Your task to perform on an android device: make emails show in primary in the gmail app Image 0: 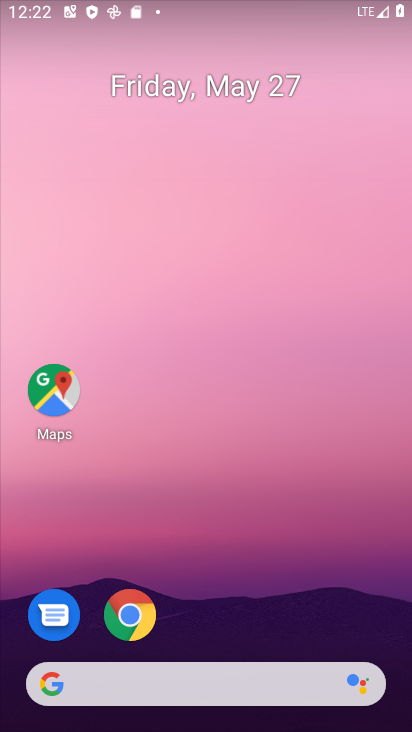
Step 0: drag from (227, 701) to (344, 25)
Your task to perform on an android device: make emails show in primary in the gmail app Image 1: 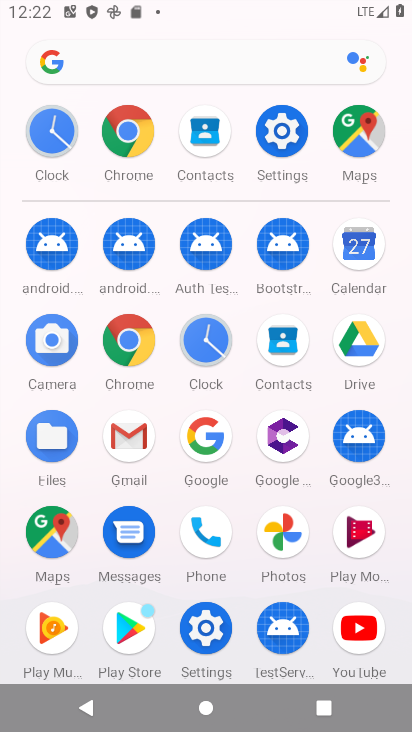
Step 1: click (146, 443)
Your task to perform on an android device: make emails show in primary in the gmail app Image 2: 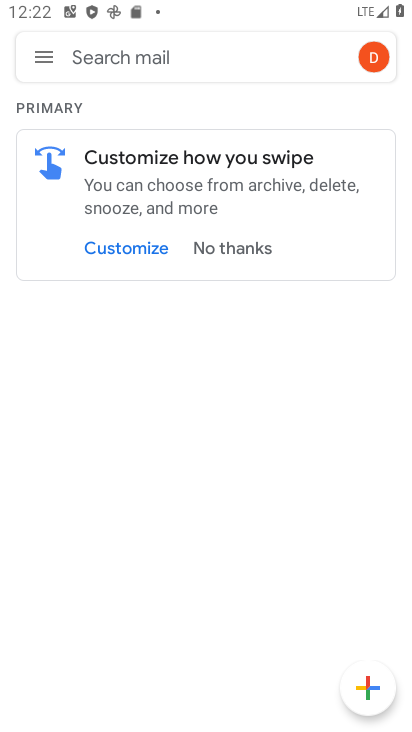
Step 2: click (44, 51)
Your task to perform on an android device: make emails show in primary in the gmail app Image 3: 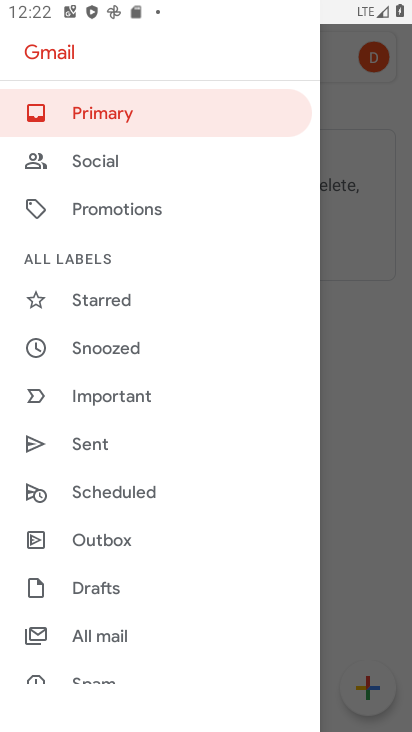
Step 3: task complete